Your task to perform on an android device: open a bookmark in the chrome app Image 0: 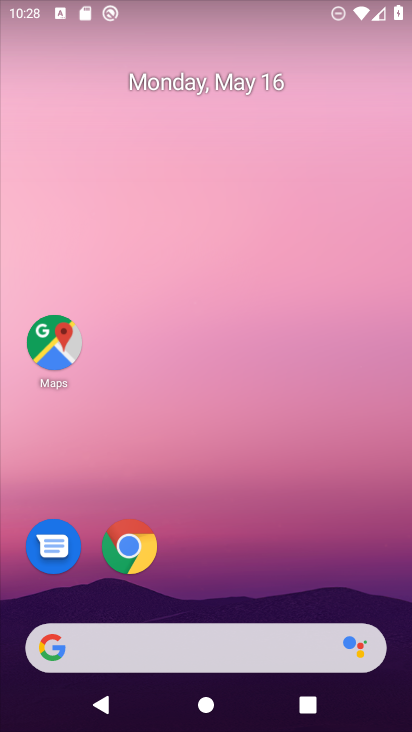
Step 0: click (136, 553)
Your task to perform on an android device: open a bookmark in the chrome app Image 1: 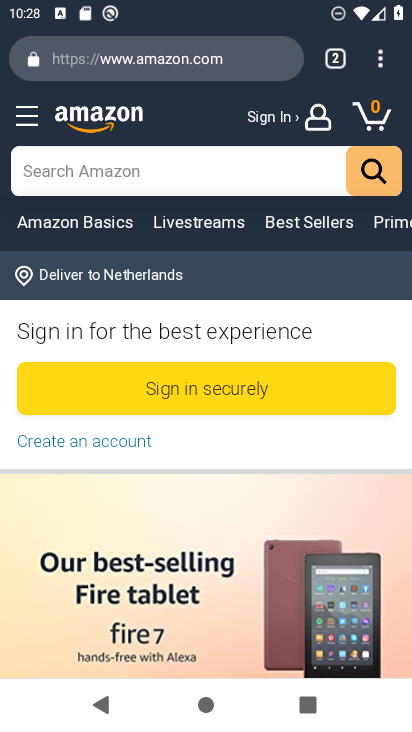
Step 1: click (388, 53)
Your task to perform on an android device: open a bookmark in the chrome app Image 2: 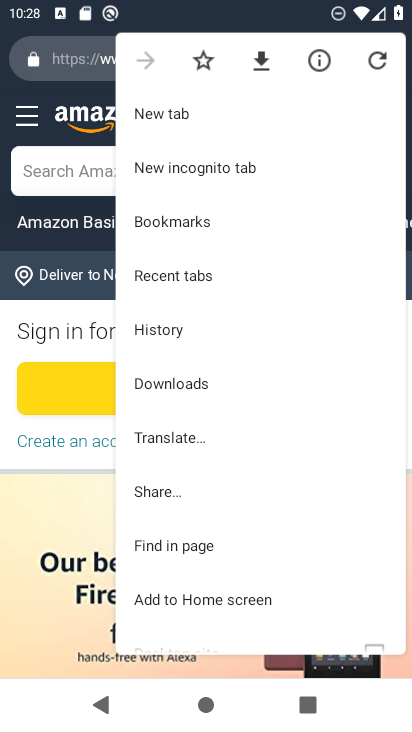
Step 2: click (257, 220)
Your task to perform on an android device: open a bookmark in the chrome app Image 3: 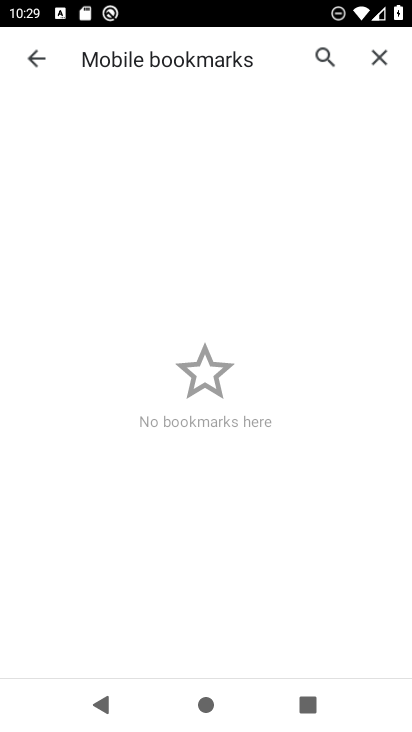
Step 3: task complete